Your task to perform on an android device: Open ESPN.com Image 0: 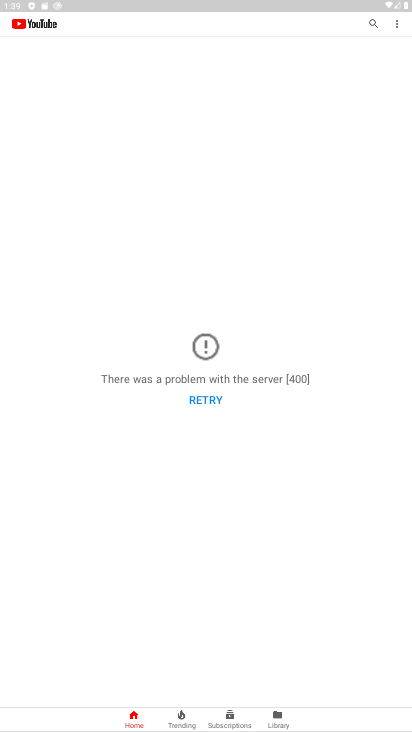
Step 0: press home button
Your task to perform on an android device: Open ESPN.com Image 1: 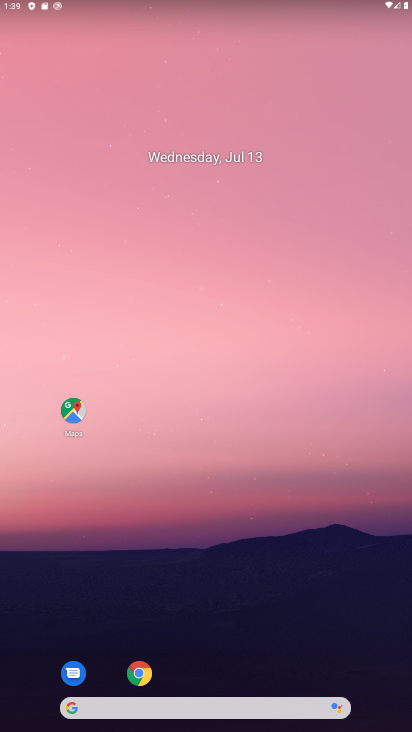
Step 1: click (140, 672)
Your task to perform on an android device: Open ESPN.com Image 2: 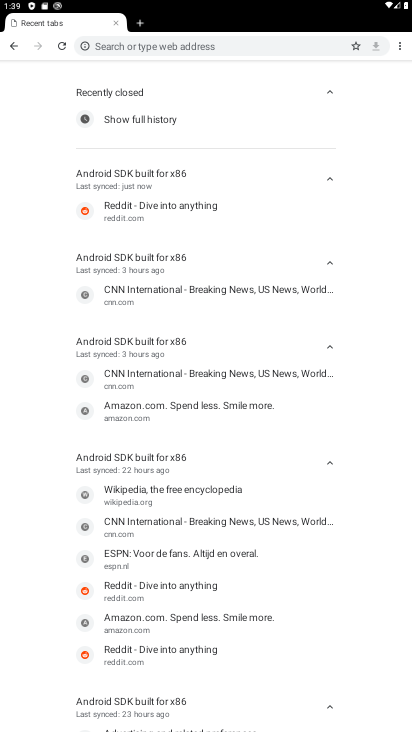
Step 2: click (398, 46)
Your task to perform on an android device: Open ESPN.com Image 3: 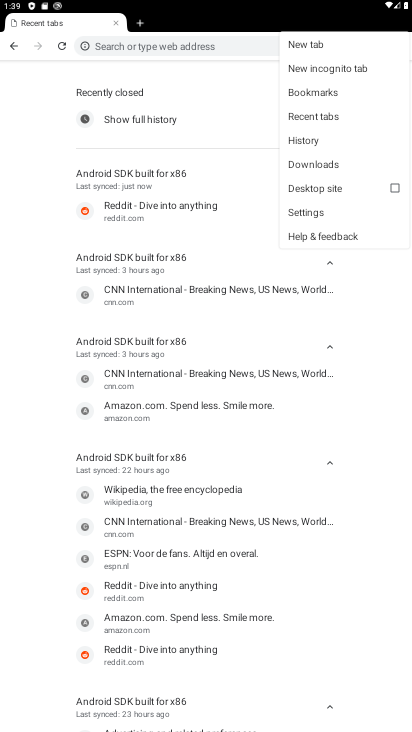
Step 3: click (297, 39)
Your task to perform on an android device: Open ESPN.com Image 4: 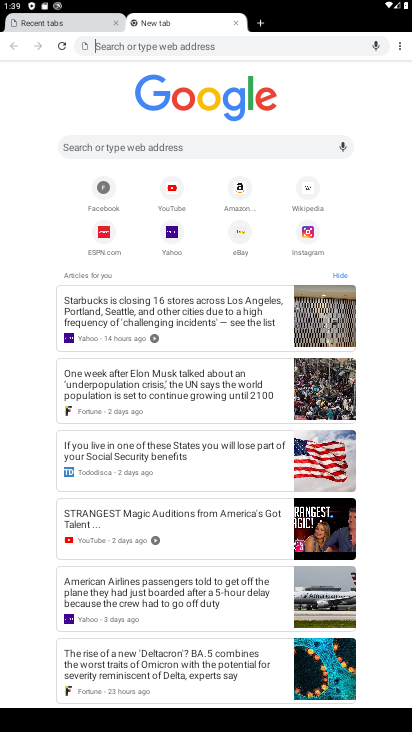
Step 4: click (96, 239)
Your task to perform on an android device: Open ESPN.com Image 5: 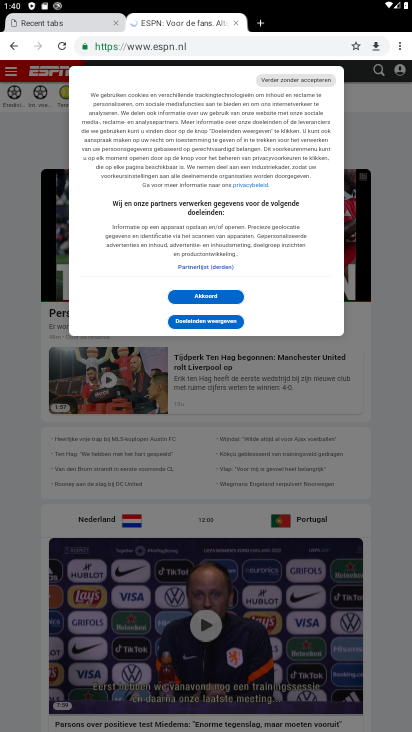
Step 5: click (191, 295)
Your task to perform on an android device: Open ESPN.com Image 6: 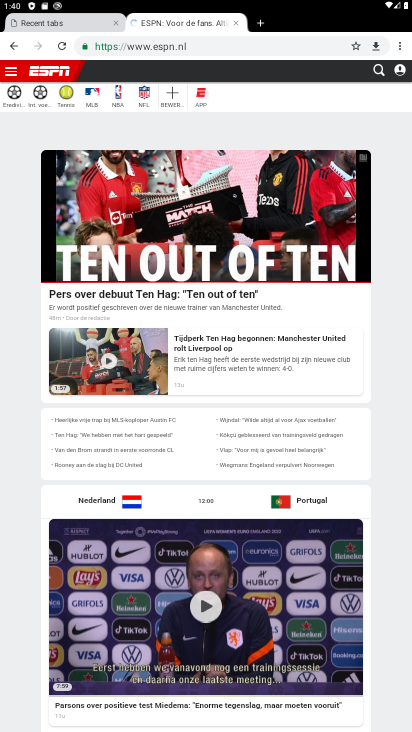
Step 6: task complete